Your task to perform on an android device: Find coffee shops on Maps Image 0: 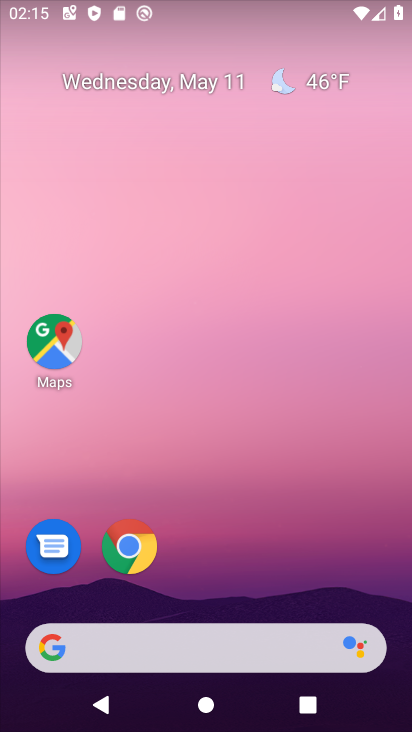
Step 0: click (249, 90)
Your task to perform on an android device: Find coffee shops on Maps Image 1: 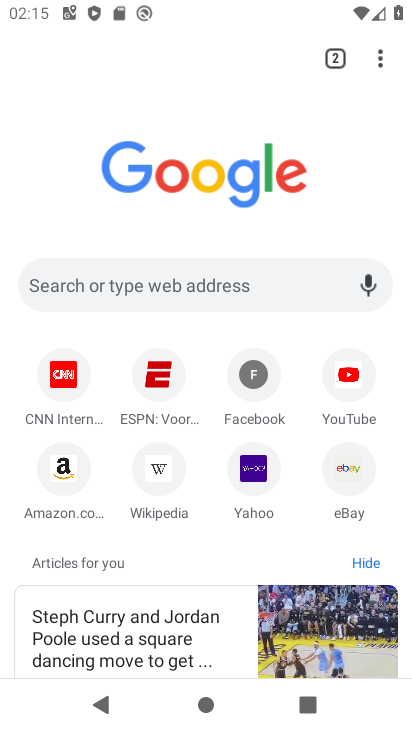
Step 1: press home button
Your task to perform on an android device: Find coffee shops on Maps Image 2: 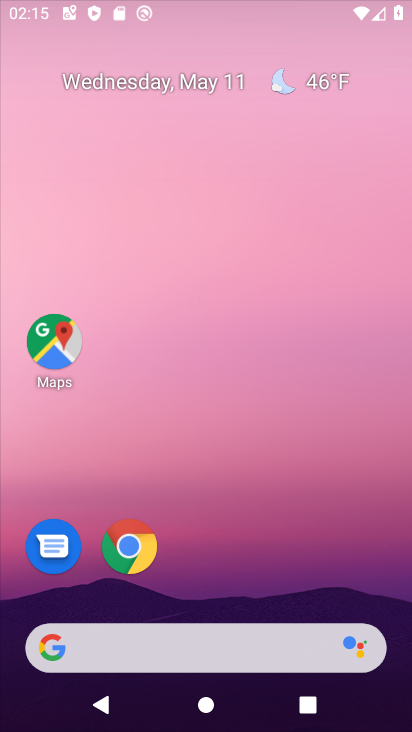
Step 2: drag from (243, 551) to (337, 5)
Your task to perform on an android device: Find coffee shops on Maps Image 3: 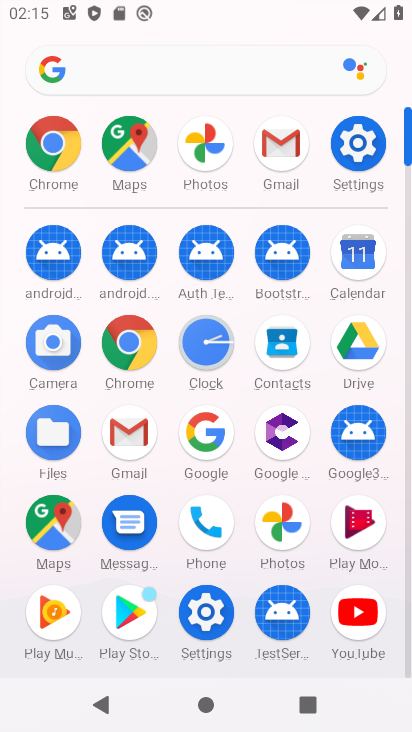
Step 3: click (56, 511)
Your task to perform on an android device: Find coffee shops on Maps Image 4: 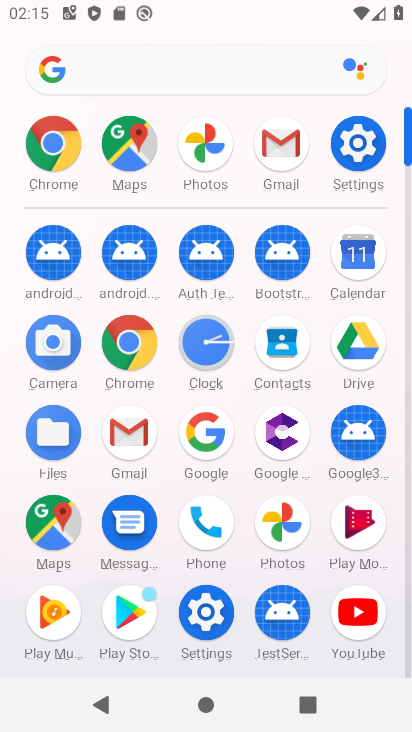
Step 4: click (56, 511)
Your task to perform on an android device: Find coffee shops on Maps Image 5: 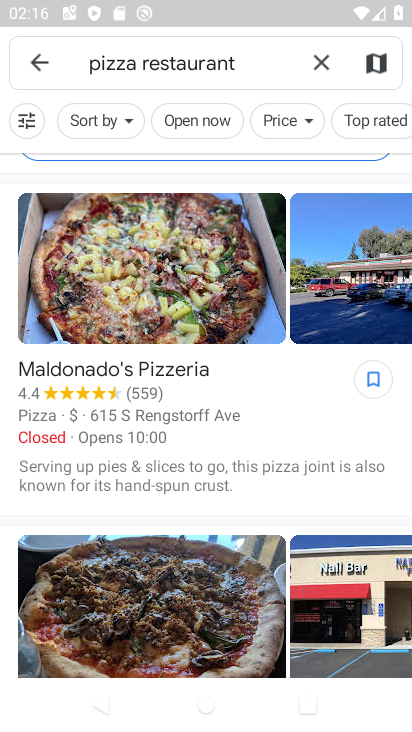
Step 5: drag from (163, 558) to (296, 245)
Your task to perform on an android device: Find coffee shops on Maps Image 6: 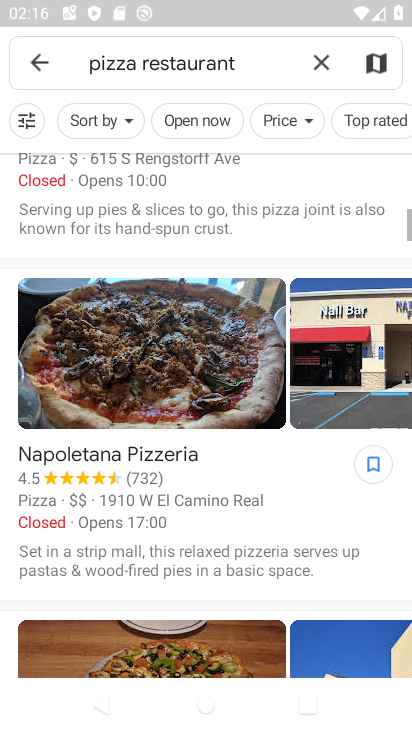
Step 6: drag from (96, 317) to (408, 99)
Your task to perform on an android device: Find coffee shops on Maps Image 7: 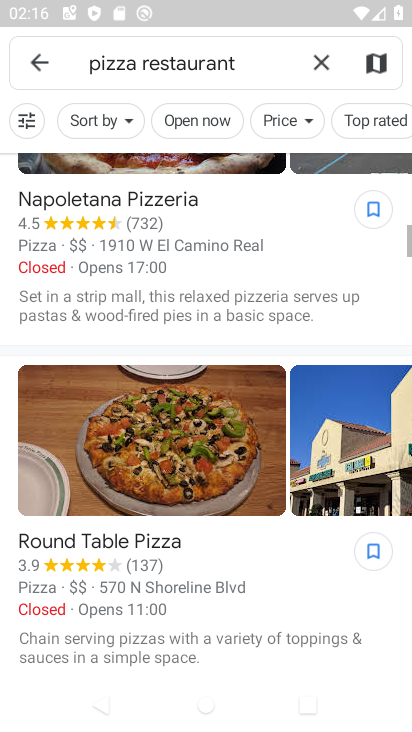
Step 7: click (315, 71)
Your task to perform on an android device: Find coffee shops on Maps Image 8: 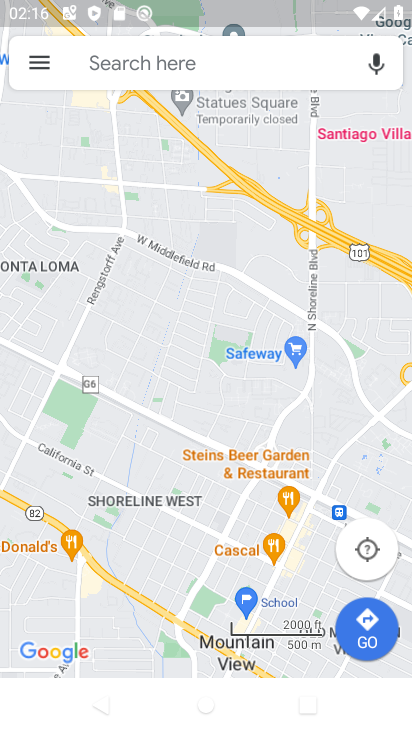
Step 8: click (164, 70)
Your task to perform on an android device: Find coffee shops on Maps Image 9: 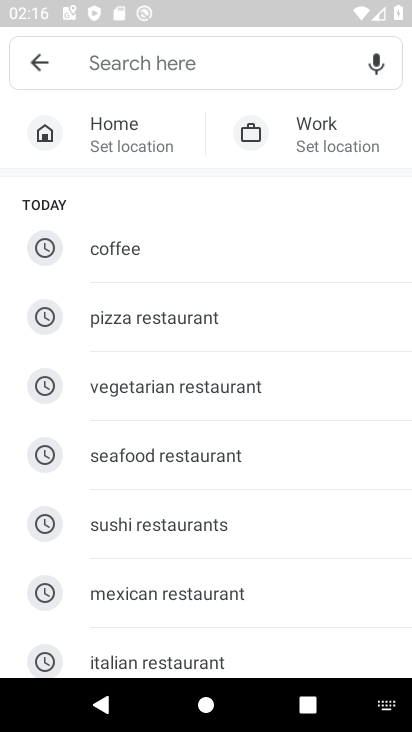
Step 9: click (135, 245)
Your task to perform on an android device: Find coffee shops on Maps Image 10: 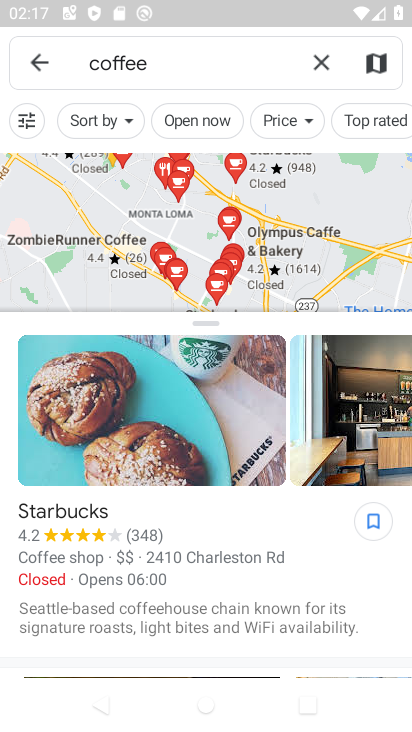
Step 10: task complete